Your task to perform on an android device: Set the phone to "Do not disturb". Image 0: 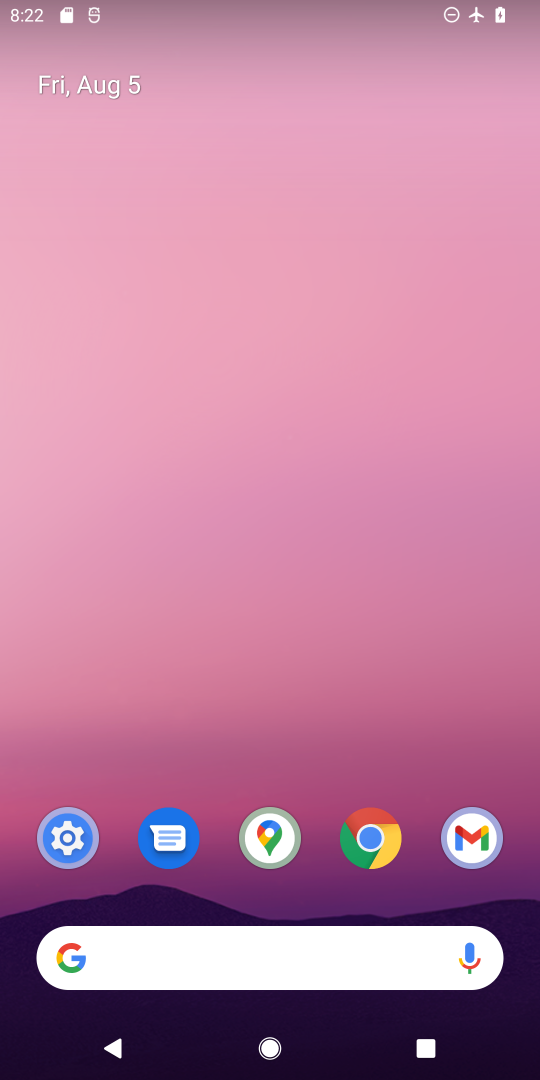
Step 0: drag from (239, 908) to (232, 417)
Your task to perform on an android device: Set the phone to "Do not disturb". Image 1: 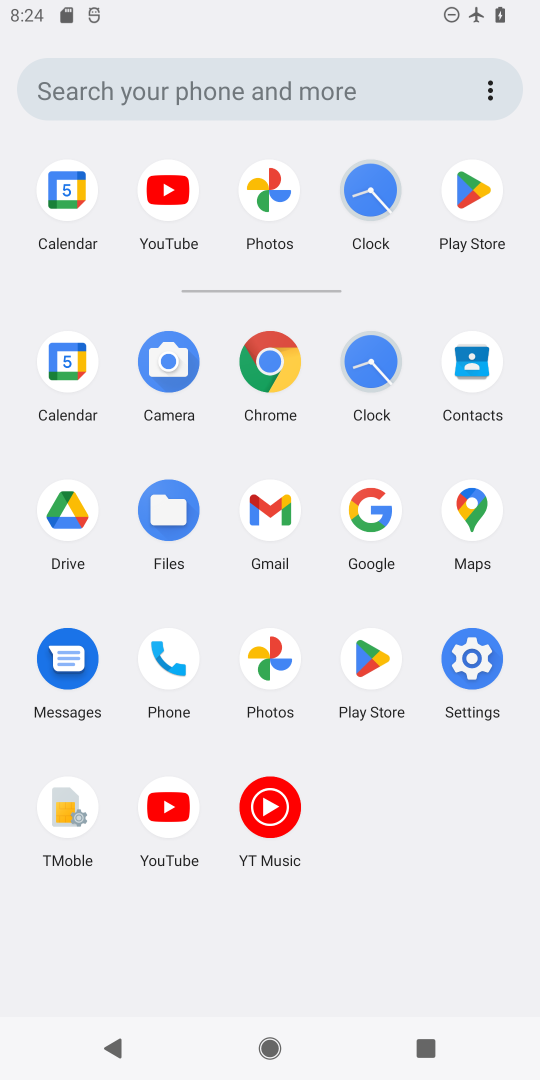
Step 1: click (475, 654)
Your task to perform on an android device: Set the phone to "Do not disturb". Image 2: 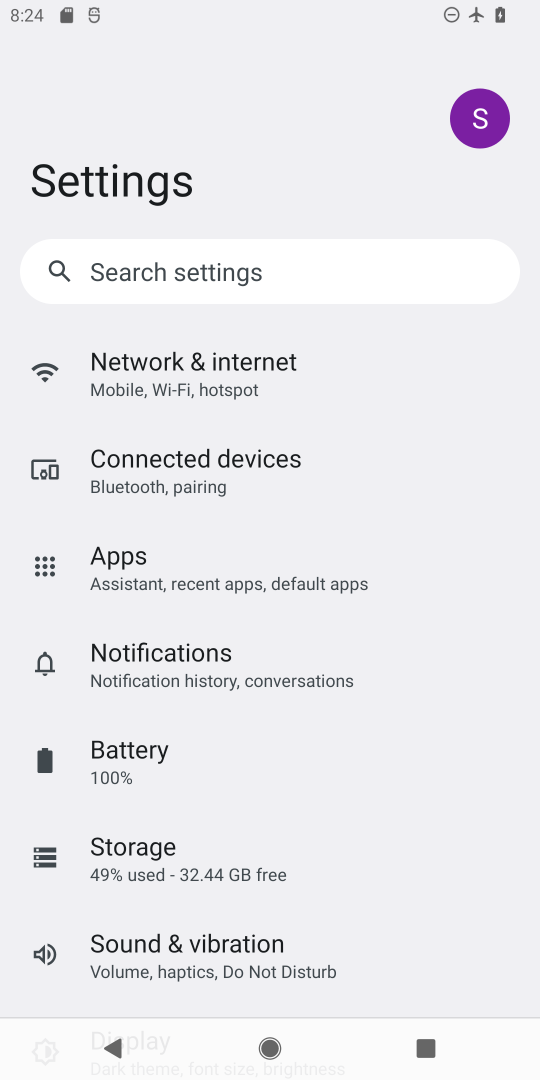
Step 2: click (161, 955)
Your task to perform on an android device: Set the phone to "Do not disturb". Image 3: 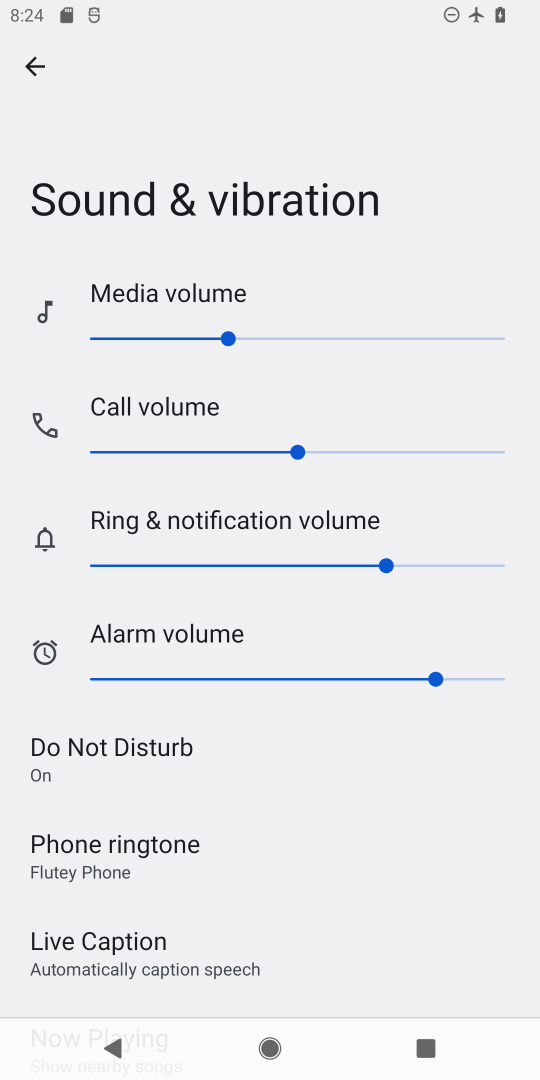
Step 3: click (92, 762)
Your task to perform on an android device: Set the phone to "Do not disturb". Image 4: 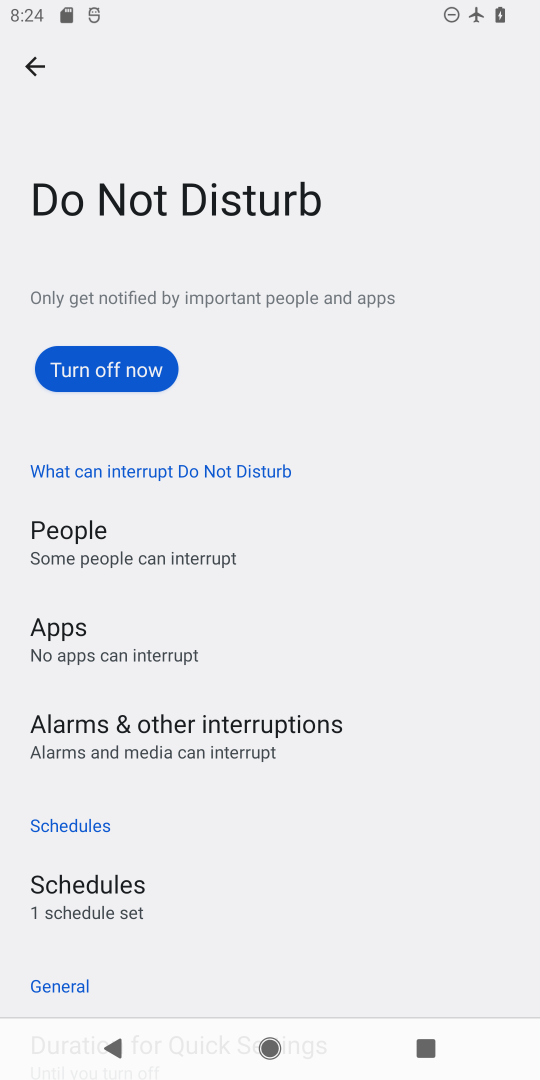
Step 4: task complete